Your task to perform on an android device: turn vacation reply on in the gmail app Image 0: 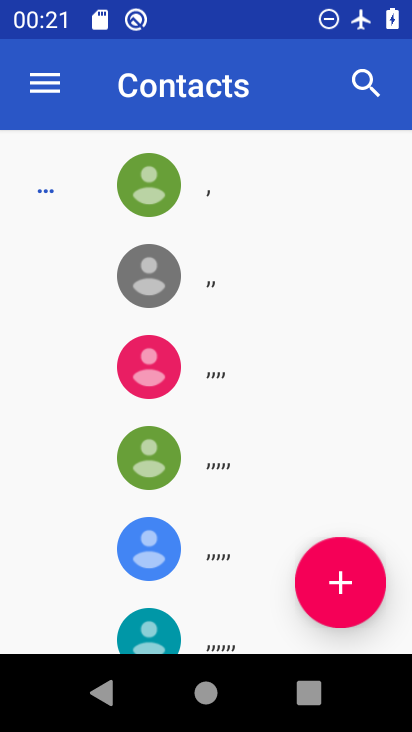
Step 0: press home button
Your task to perform on an android device: turn vacation reply on in the gmail app Image 1: 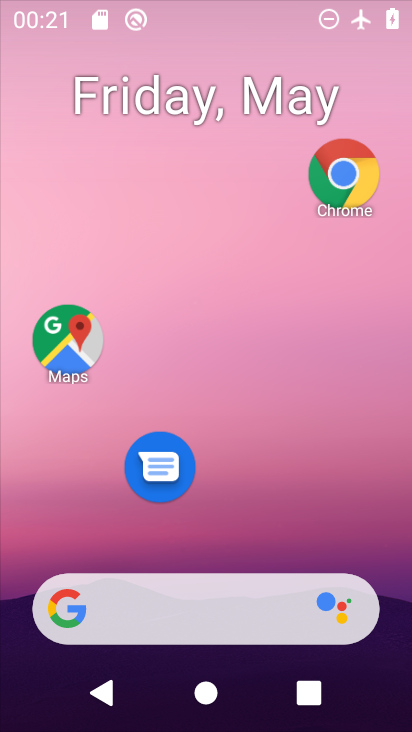
Step 1: drag from (221, 474) to (209, 206)
Your task to perform on an android device: turn vacation reply on in the gmail app Image 2: 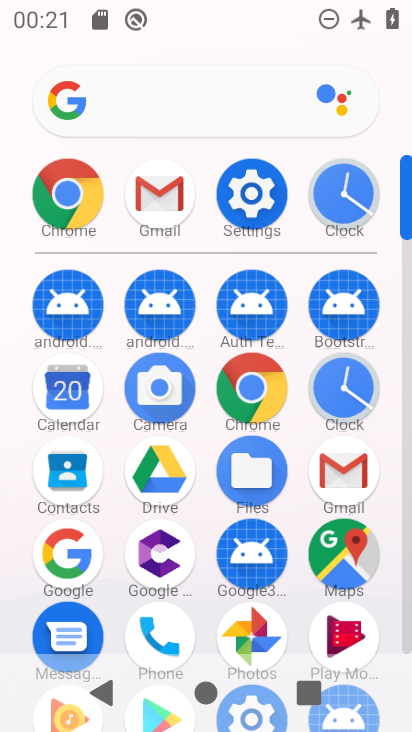
Step 2: click (321, 473)
Your task to perform on an android device: turn vacation reply on in the gmail app Image 3: 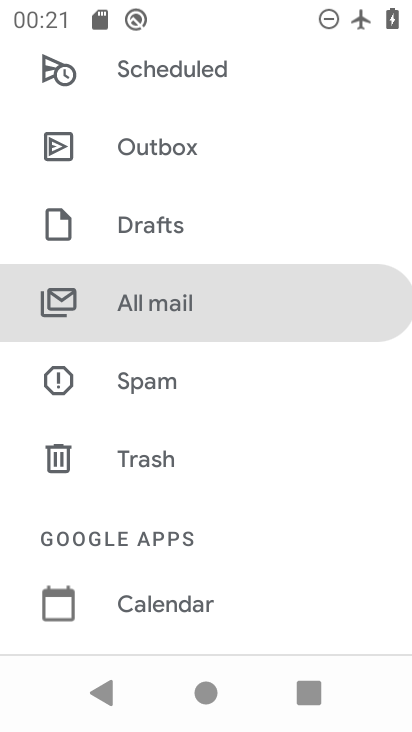
Step 3: drag from (136, 594) to (156, 188)
Your task to perform on an android device: turn vacation reply on in the gmail app Image 4: 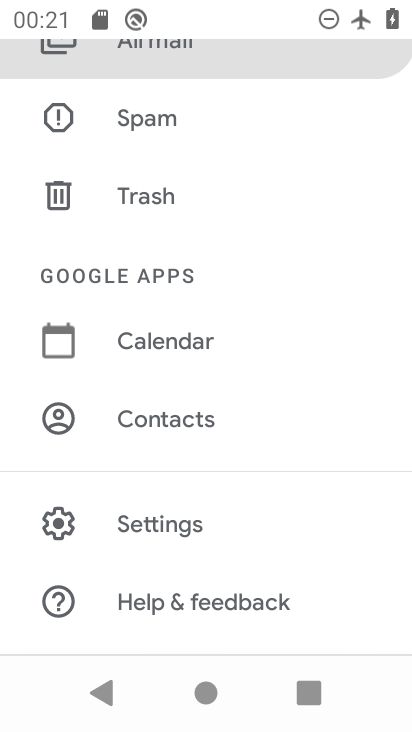
Step 4: click (215, 524)
Your task to perform on an android device: turn vacation reply on in the gmail app Image 5: 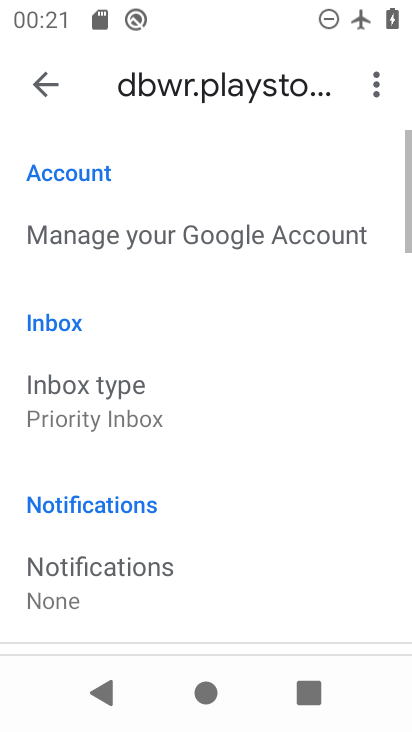
Step 5: drag from (162, 545) to (171, 160)
Your task to perform on an android device: turn vacation reply on in the gmail app Image 6: 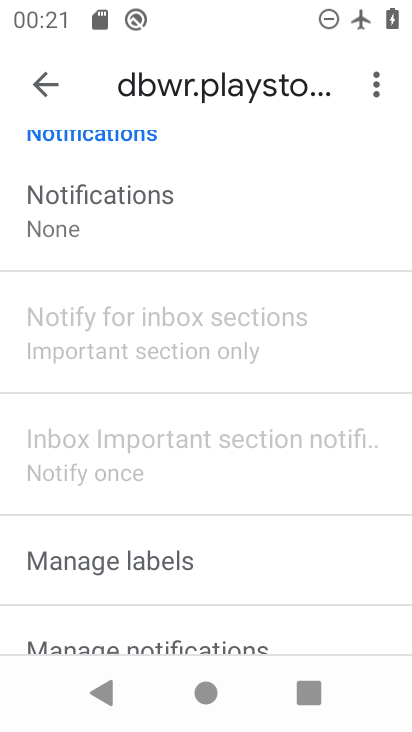
Step 6: drag from (186, 461) to (204, 147)
Your task to perform on an android device: turn vacation reply on in the gmail app Image 7: 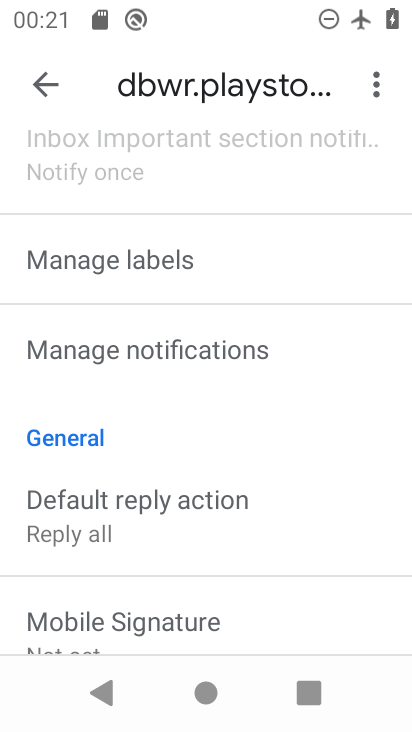
Step 7: drag from (146, 564) to (248, 88)
Your task to perform on an android device: turn vacation reply on in the gmail app Image 8: 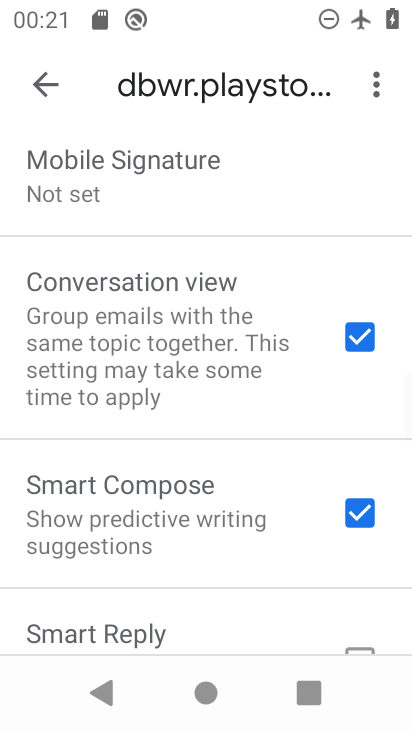
Step 8: drag from (168, 576) to (197, 243)
Your task to perform on an android device: turn vacation reply on in the gmail app Image 9: 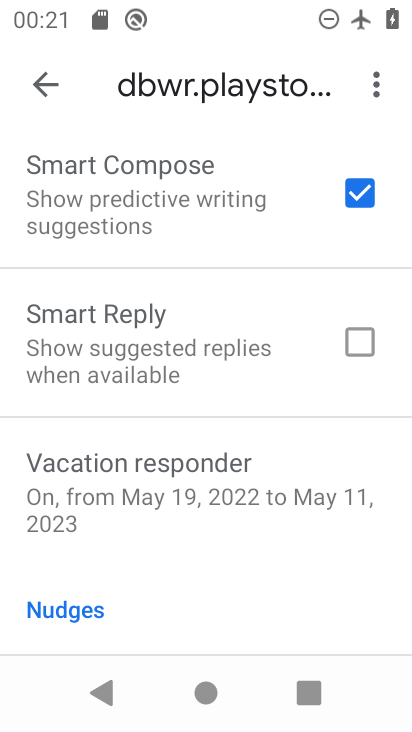
Step 9: click (149, 490)
Your task to perform on an android device: turn vacation reply on in the gmail app Image 10: 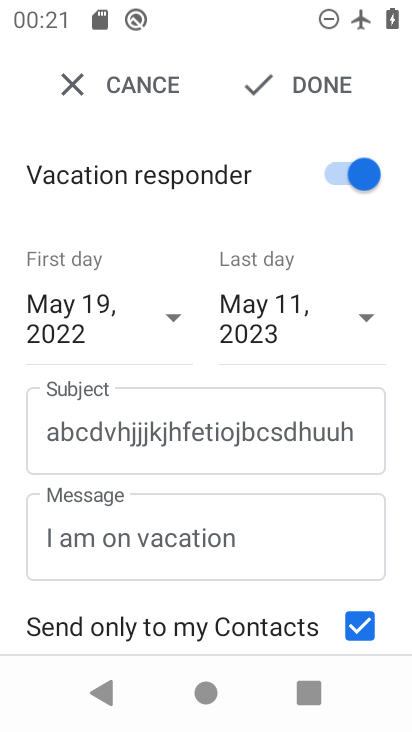
Step 10: task complete